Your task to perform on an android device: toggle airplane mode Image 0: 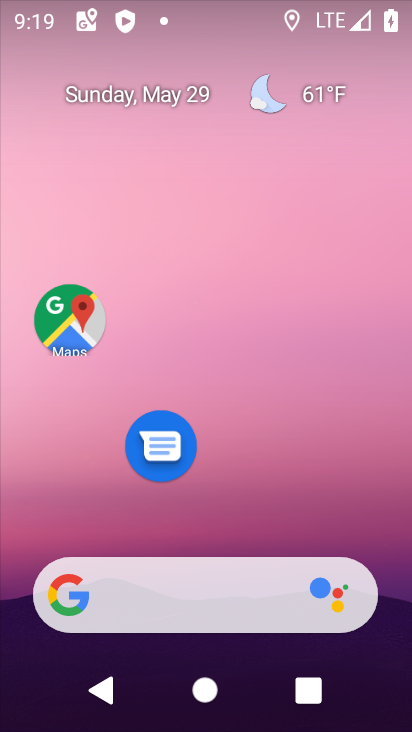
Step 0: drag from (231, 528) to (234, 100)
Your task to perform on an android device: toggle airplane mode Image 1: 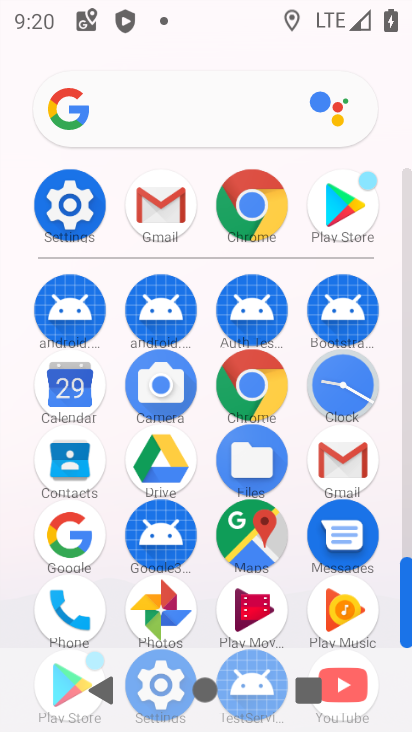
Step 1: click (95, 209)
Your task to perform on an android device: toggle airplane mode Image 2: 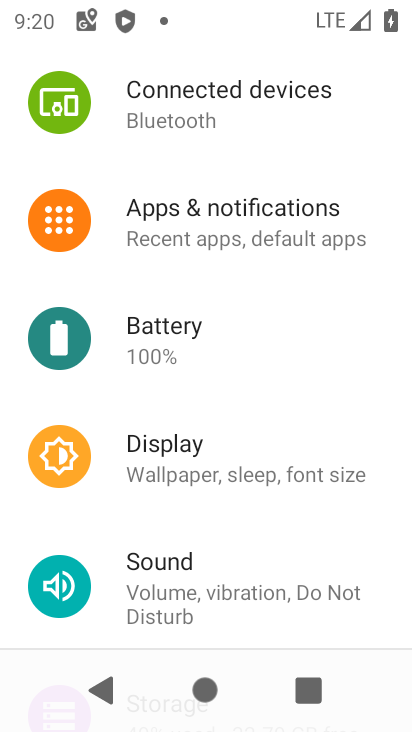
Step 2: drag from (230, 168) to (271, 504)
Your task to perform on an android device: toggle airplane mode Image 3: 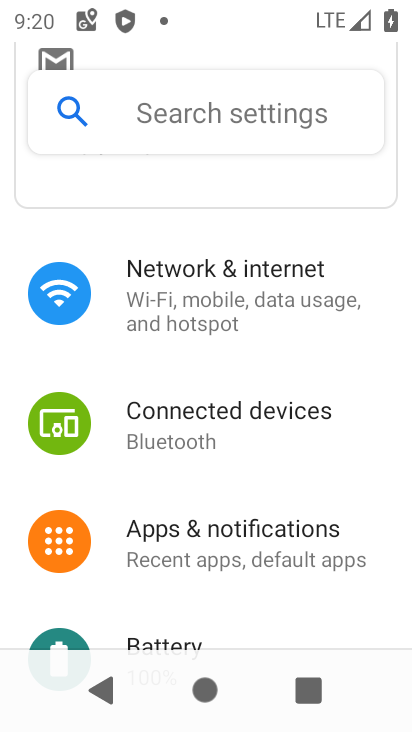
Step 3: click (234, 291)
Your task to perform on an android device: toggle airplane mode Image 4: 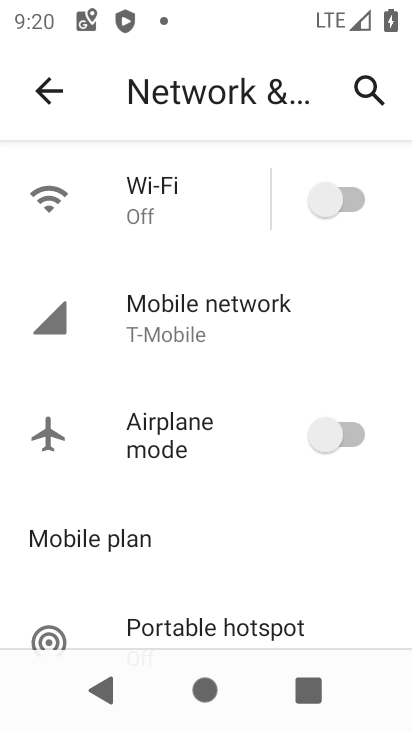
Step 4: click (353, 430)
Your task to perform on an android device: toggle airplane mode Image 5: 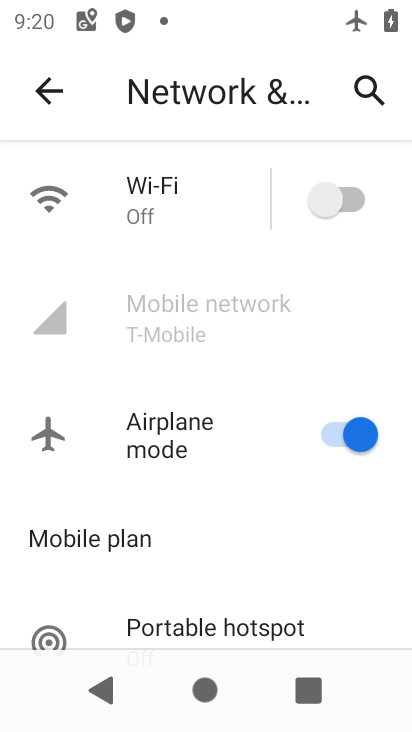
Step 5: task complete